Your task to perform on an android device: Open Google Chrome and click the shortcut for Amazon.com Image 0: 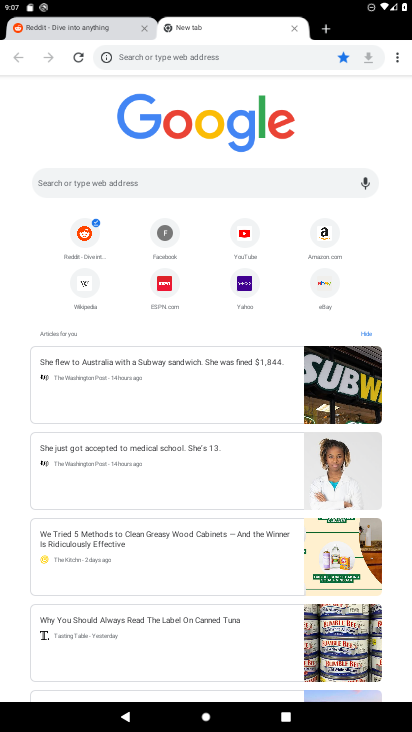
Step 0: click (323, 230)
Your task to perform on an android device: Open Google Chrome and click the shortcut for Amazon.com Image 1: 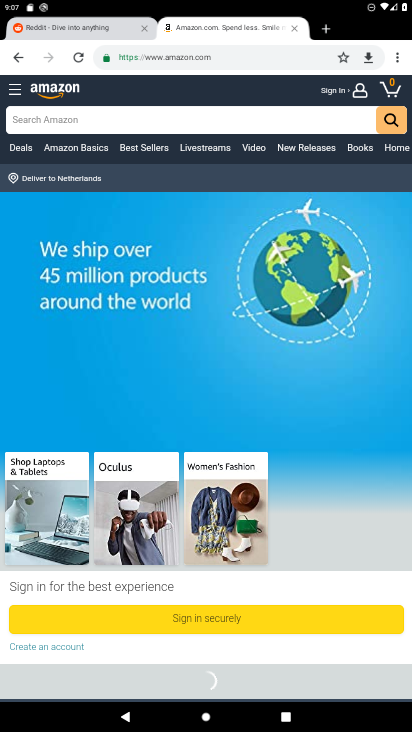
Step 1: task complete